Your task to perform on an android device: Open the Play Movies app and select the watchlist tab. Image 0: 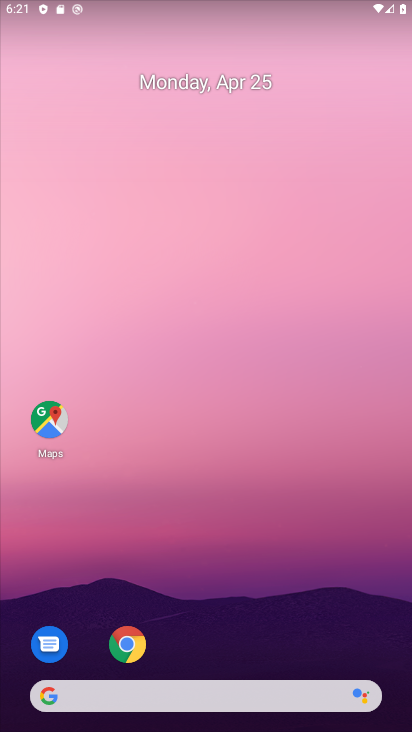
Step 0: drag from (328, 594) to (381, 34)
Your task to perform on an android device: Open the Play Movies app and select the watchlist tab. Image 1: 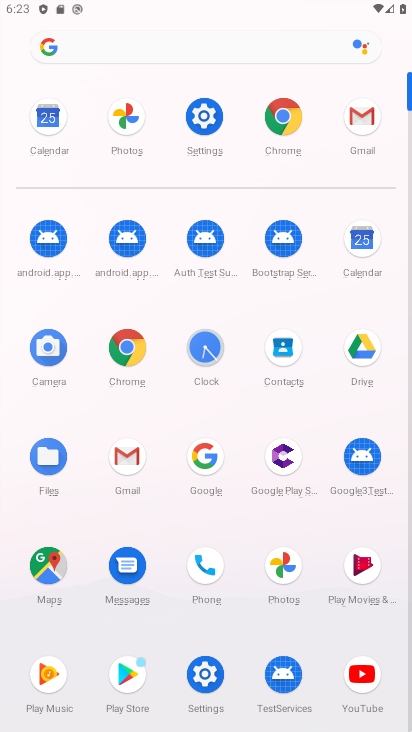
Step 1: click (367, 571)
Your task to perform on an android device: Open the Play Movies app and select the watchlist tab. Image 2: 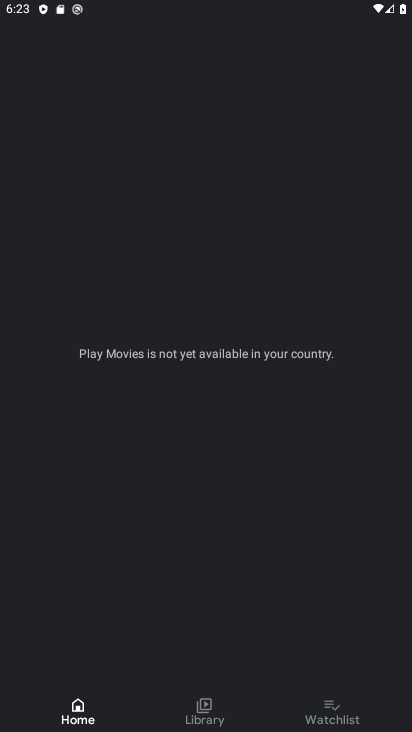
Step 2: click (335, 705)
Your task to perform on an android device: Open the Play Movies app and select the watchlist tab. Image 3: 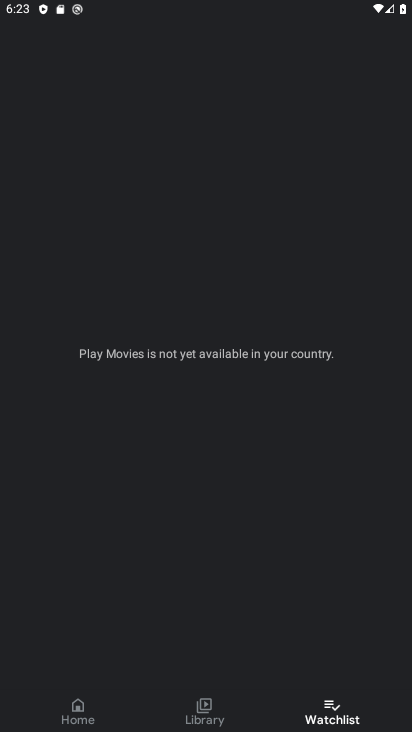
Step 3: task complete